Your task to perform on an android device: Open location settings Image 0: 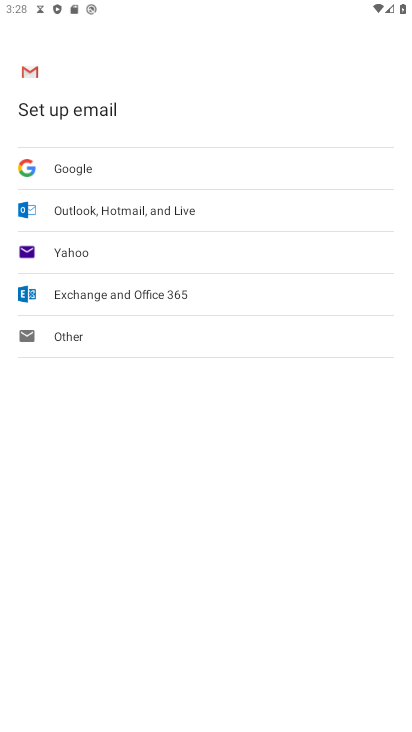
Step 0: press back button
Your task to perform on an android device: Open location settings Image 1: 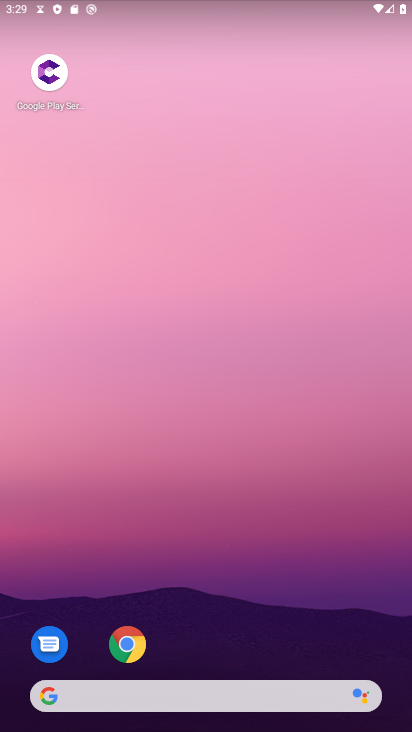
Step 1: drag from (213, 614) to (201, 22)
Your task to perform on an android device: Open location settings Image 2: 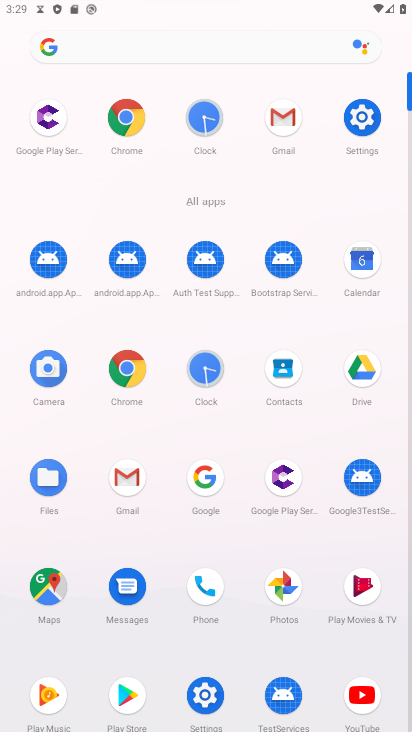
Step 2: click (361, 117)
Your task to perform on an android device: Open location settings Image 3: 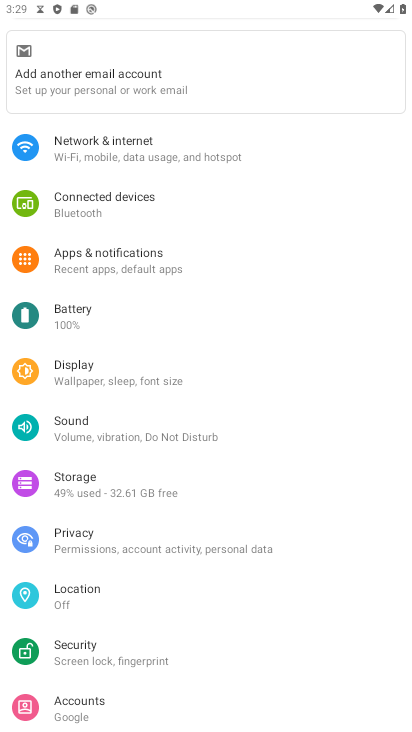
Step 3: click (78, 595)
Your task to perform on an android device: Open location settings Image 4: 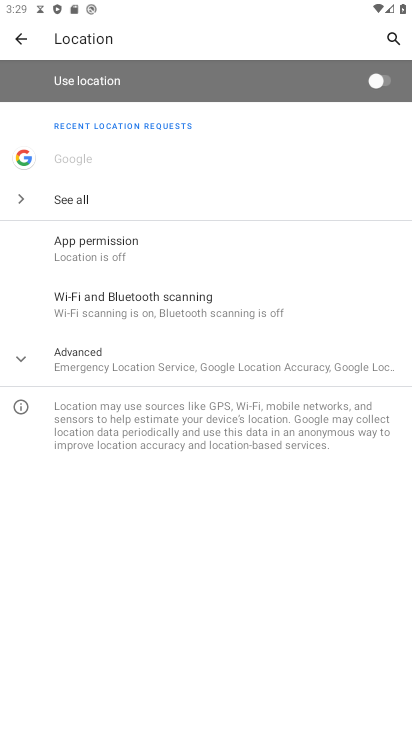
Step 4: task complete